Your task to perform on an android device: Open ESPN.com Image 0: 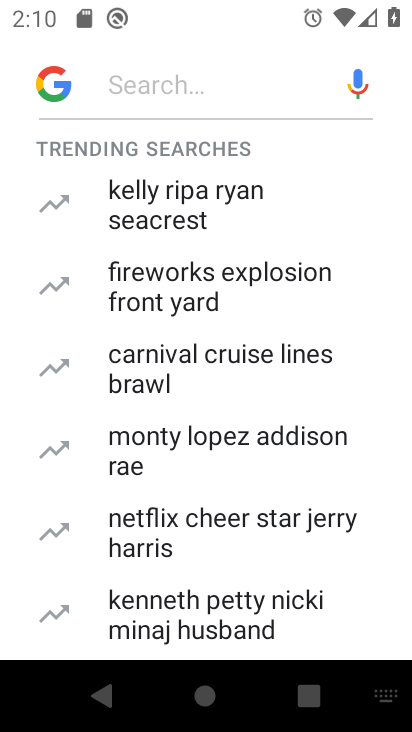
Step 0: press home button
Your task to perform on an android device: Open ESPN.com Image 1: 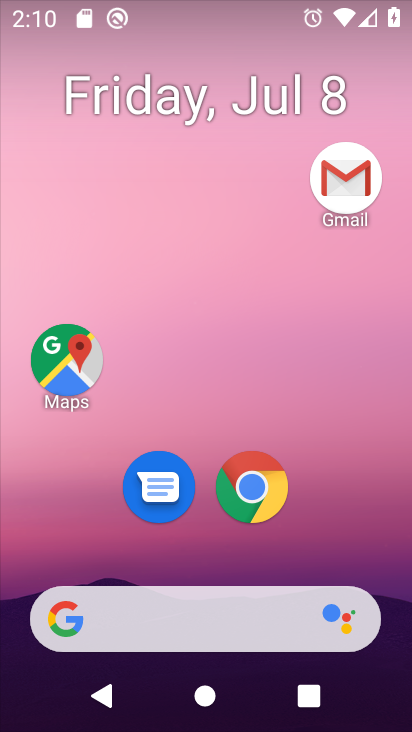
Step 1: drag from (360, 530) to (361, 133)
Your task to perform on an android device: Open ESPN.com Image 2: 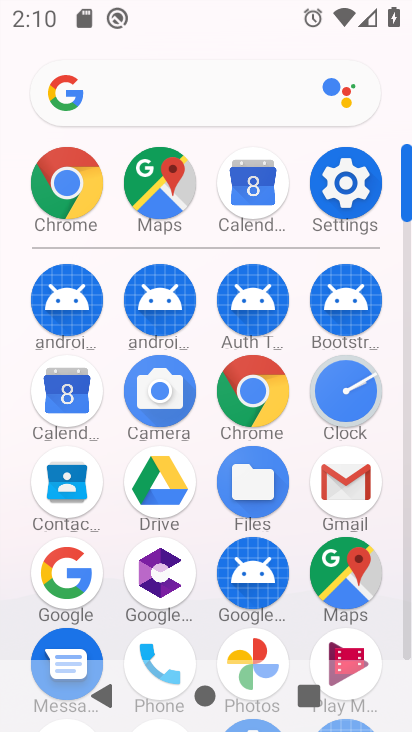
Step 2: click (258, 406)
Your task to perform on an android device: Open ESPN.com Image 3: 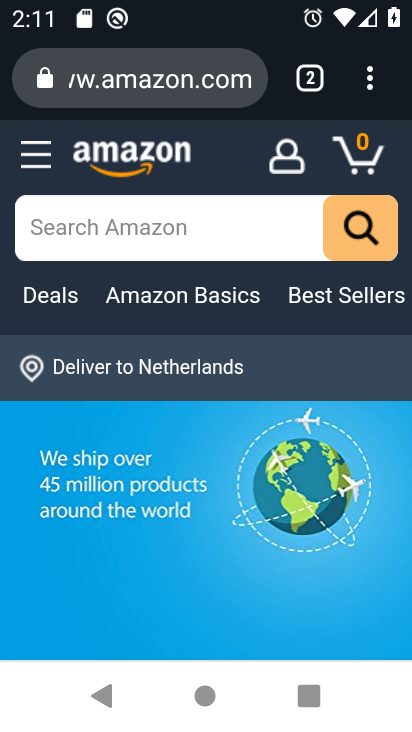
Step 3: click (194, 78)
Your task to perform on an android device: Open ESPN.com Image 4: 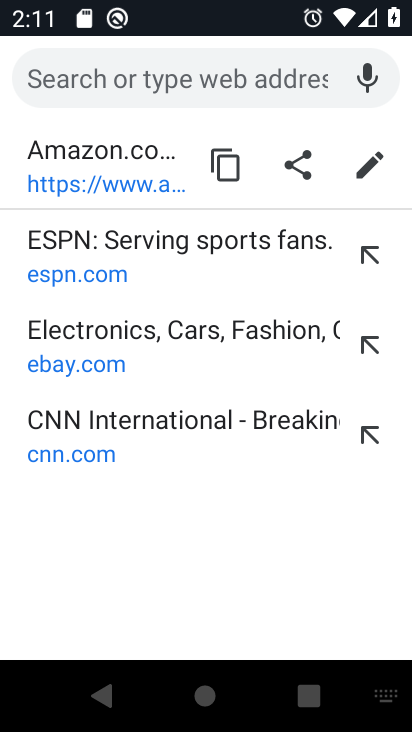
Step 4: type "espn.com"
Your task to perform on an android device: Open ESPN.com Image 5: 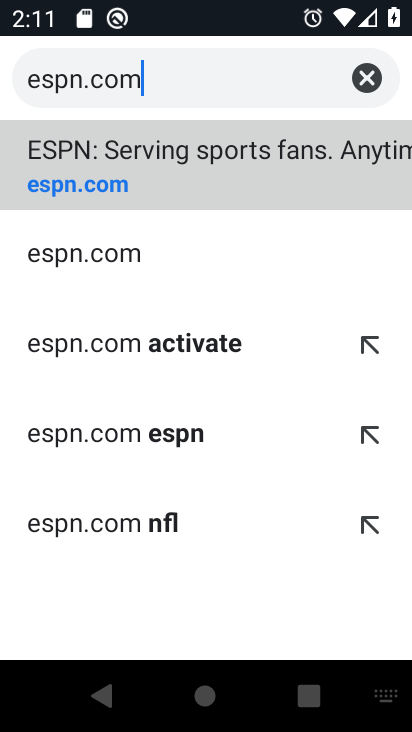
Step 5: click (204, 149)
Your task to perform on an android device: Open ESPN.com Image 6: 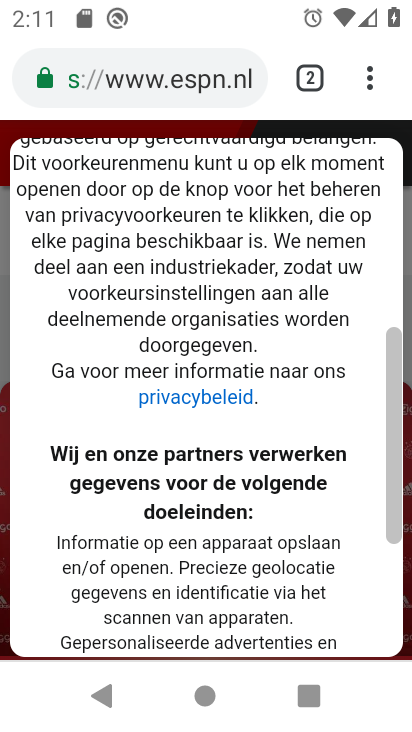
Step 6: task complete